Your task to perform on an android device: toggle notification dots Image 0: 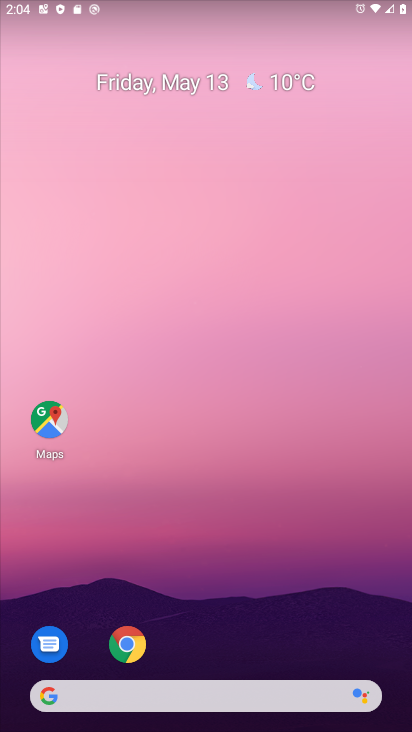
Step 0: drag from (225, 715) to (225, 69)
Your task to perform on an android device: toggle notification dots Image 1: 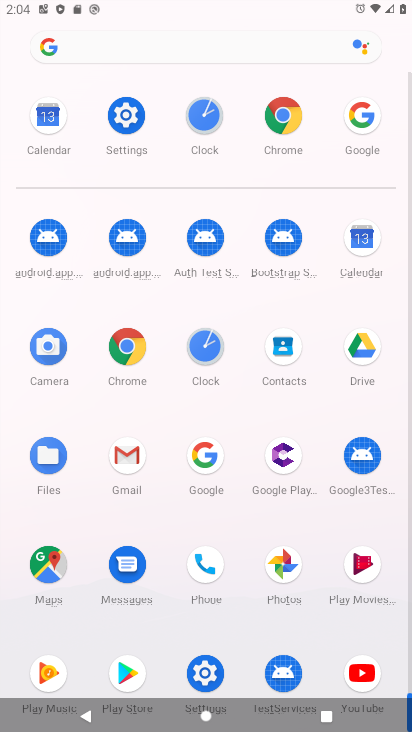
Step 1: click (125, 112)
Your task to perform on an android device: toggle notification dots Image 2: 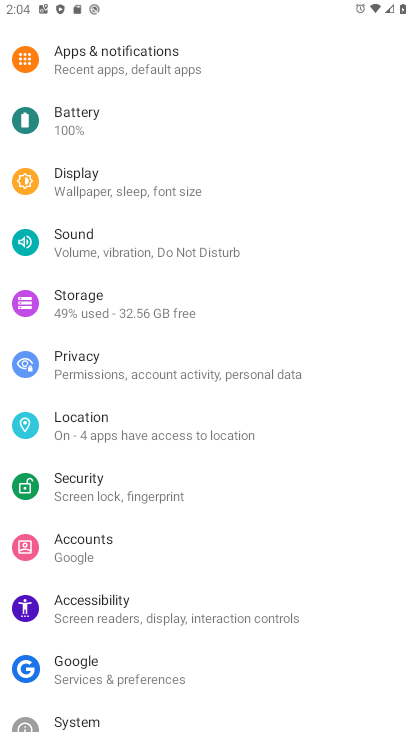
Step 2: click (114, 66)
Your task to perform on an android device: toggle notification dots Image 3: 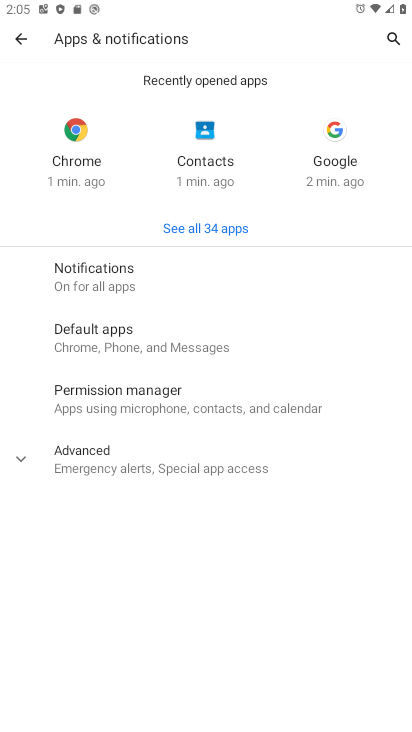
Step 3: click (89, 268)
Your task to perform on an android device: toggle notification dots Image 4: 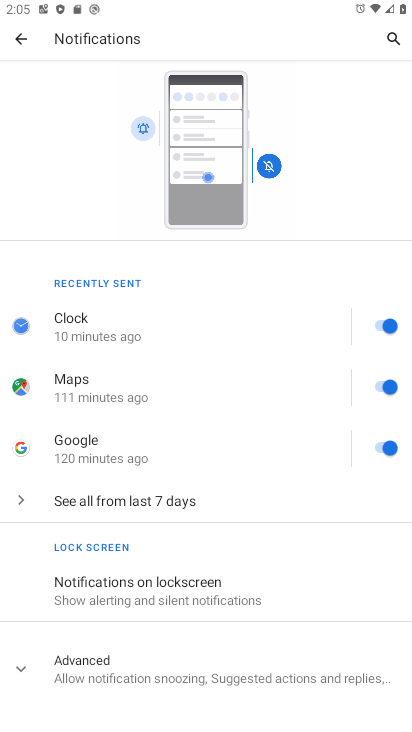
Step 4: drag from (191, 680) to (210, 270)
Your task to perform on an android device: toggle notification dots Image 5: 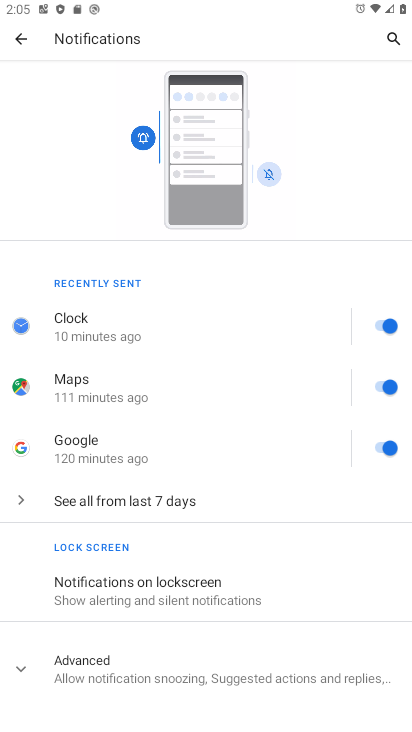
Step 5: click (122, 667)
Your task to perform on an android device: toggle notification dots Image 6: 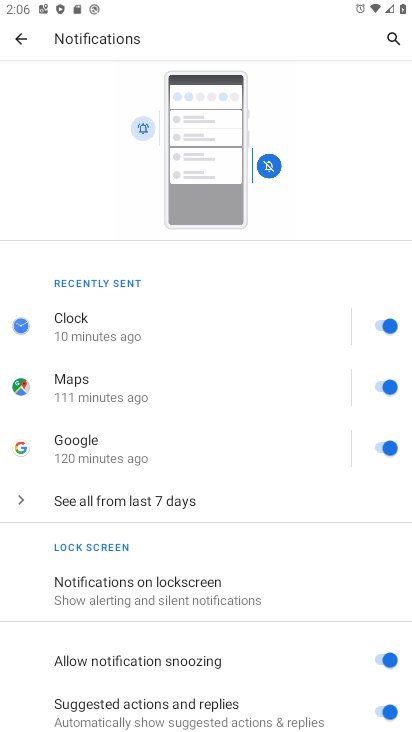
Step 6: drag from (225, 698) to (244, 390)
Your task to perform on an android device: toggle notification dots Image 7: 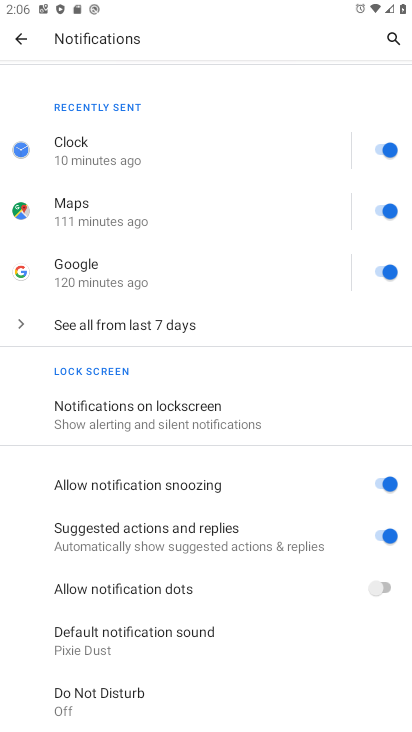
Step 7: click (383, 586)
Your task to perform on an android device: toggle notification dots Image 8: 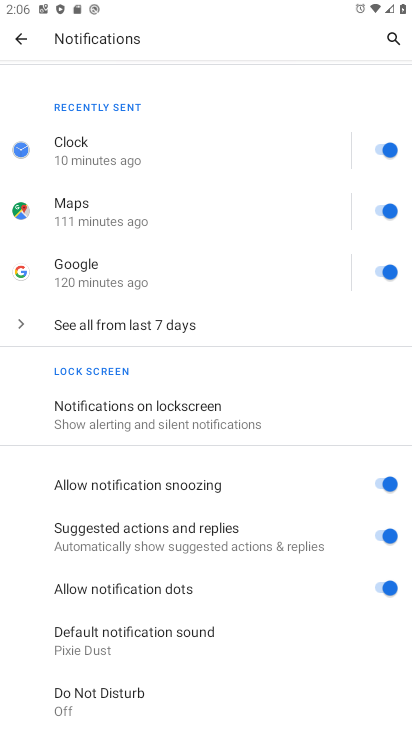
Step 8: task complete